Your task to perform on an android device: Go to Wikipedia Image 0: 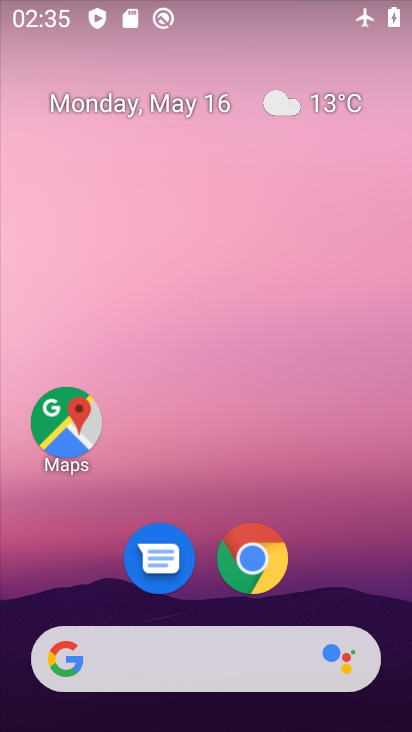
Step 0: click (260, 557)
Your task to perform on an android device: Go to Wikipedia Image 1: 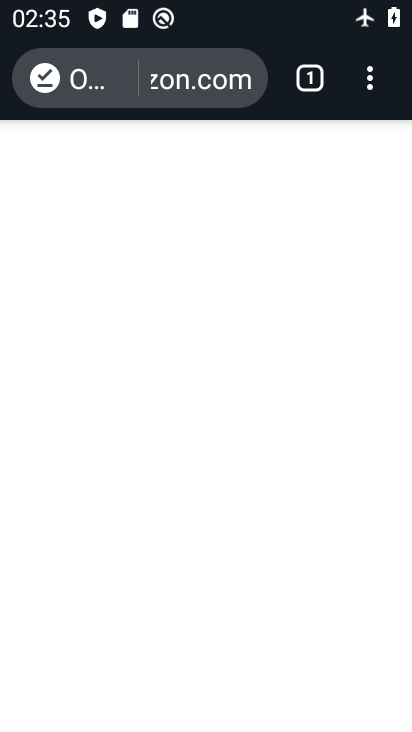
Step 1: click (294, 71)
Your task to perform on an android device: Go to Wikipedia Image 2: 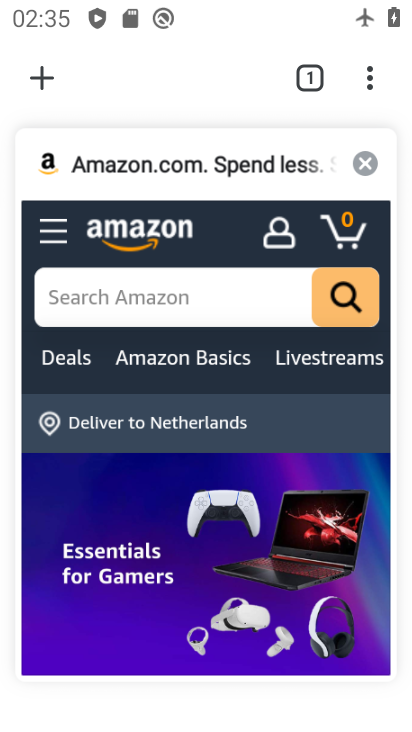
Step 2: click (51, 63)
Your task to perform on an android device: Go to Wikipedia Image 3: 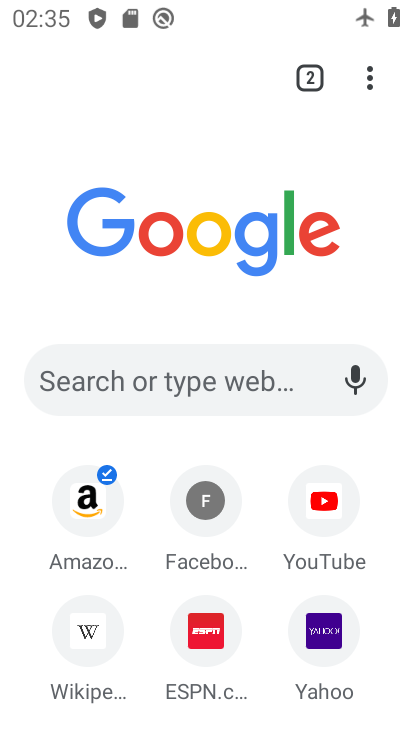
Step 3: click (71, 640)
Your task to perform on an android device: Go to Wikipedia Image 4: 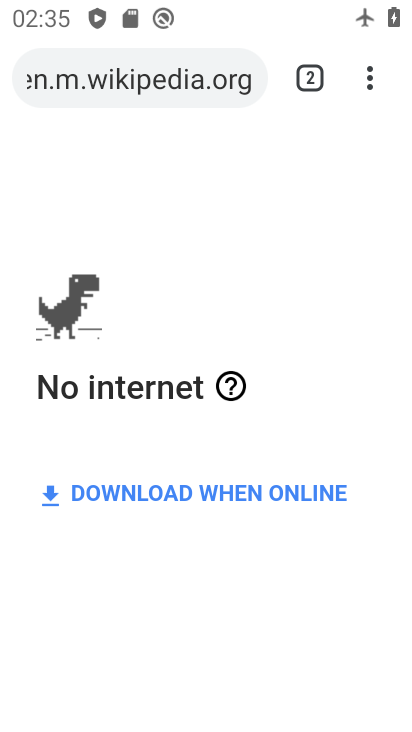
Step 4: task complete